Your task to perform on an android device: uninstall "Duolingo: language lessons" Image 0: 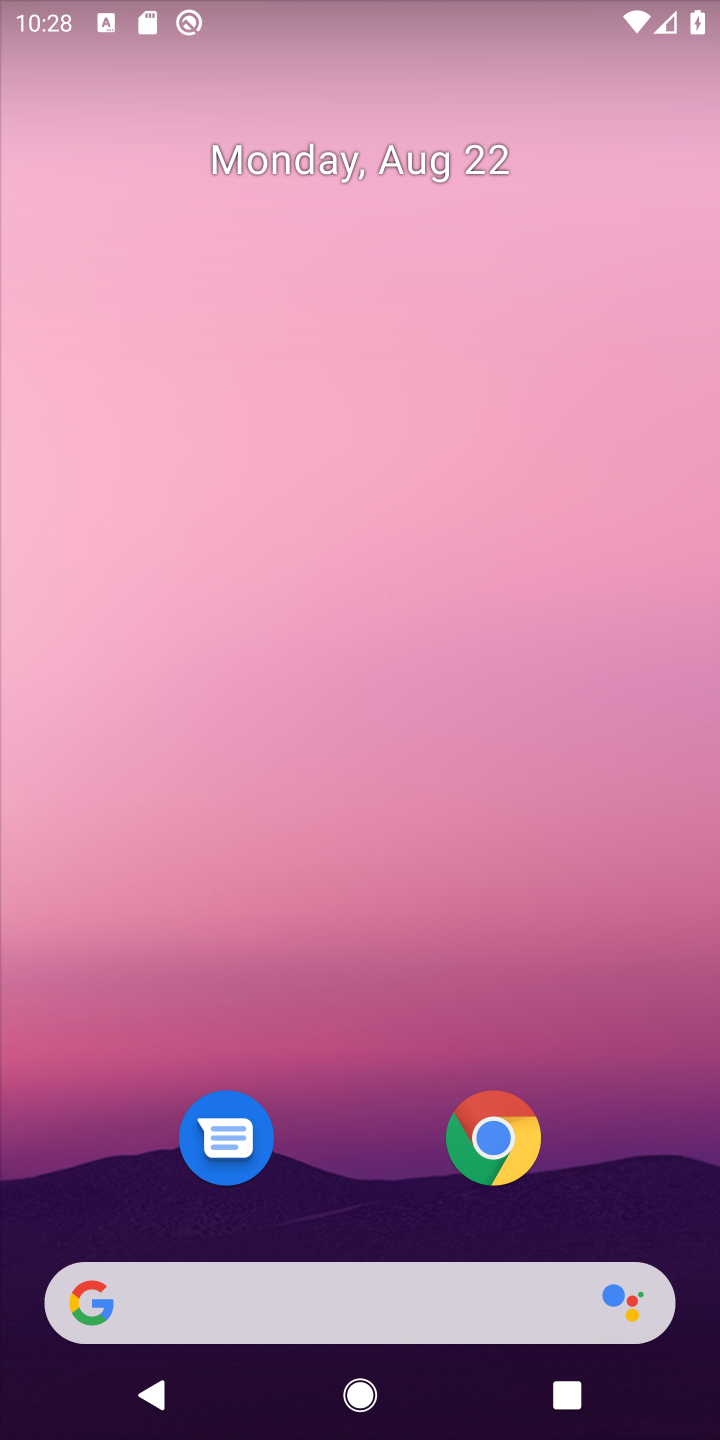
Step 0: press home button
Your task to perform on an android device: uninstall "Duolingo: language lessons" Image 1: 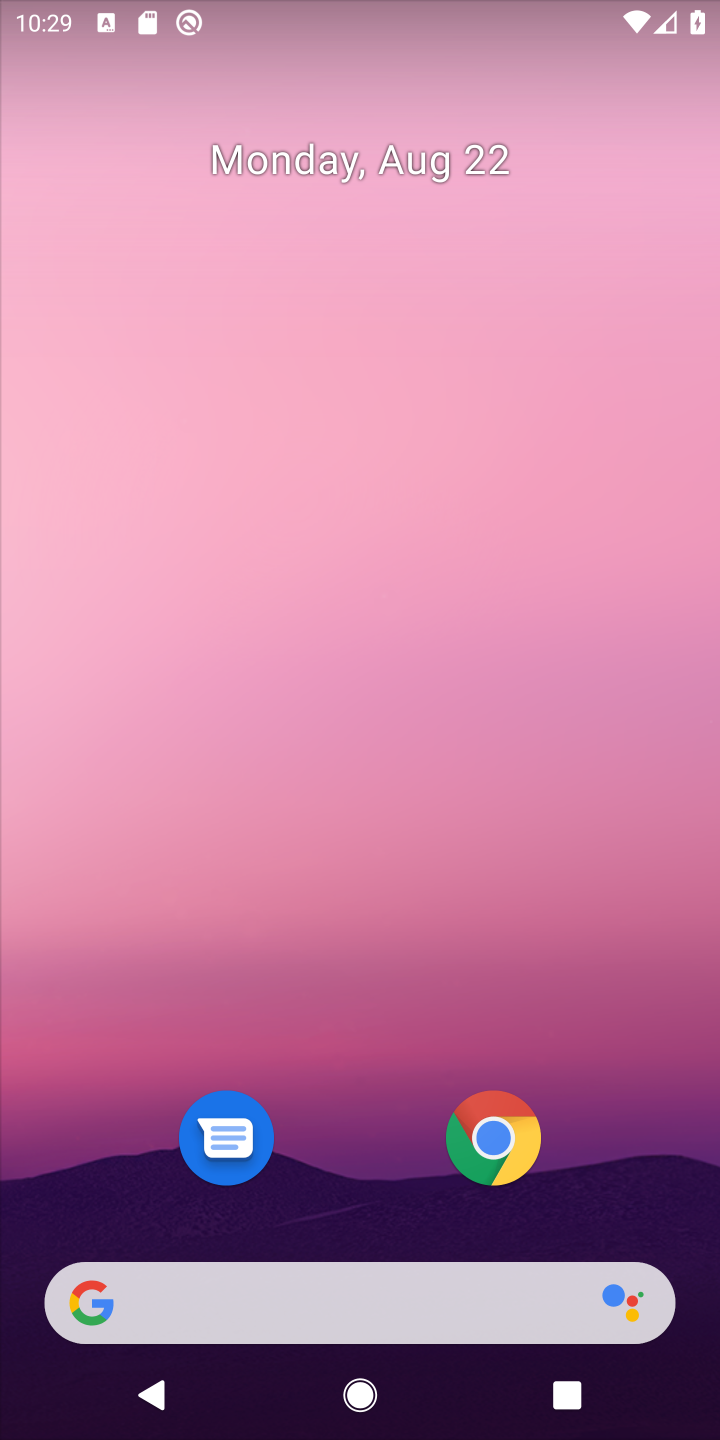
Step 1: drag from (364, 1206) to (418, 297)
Your task to perform on an android device: uninstall "Duolingo: language lessons" Image 2: 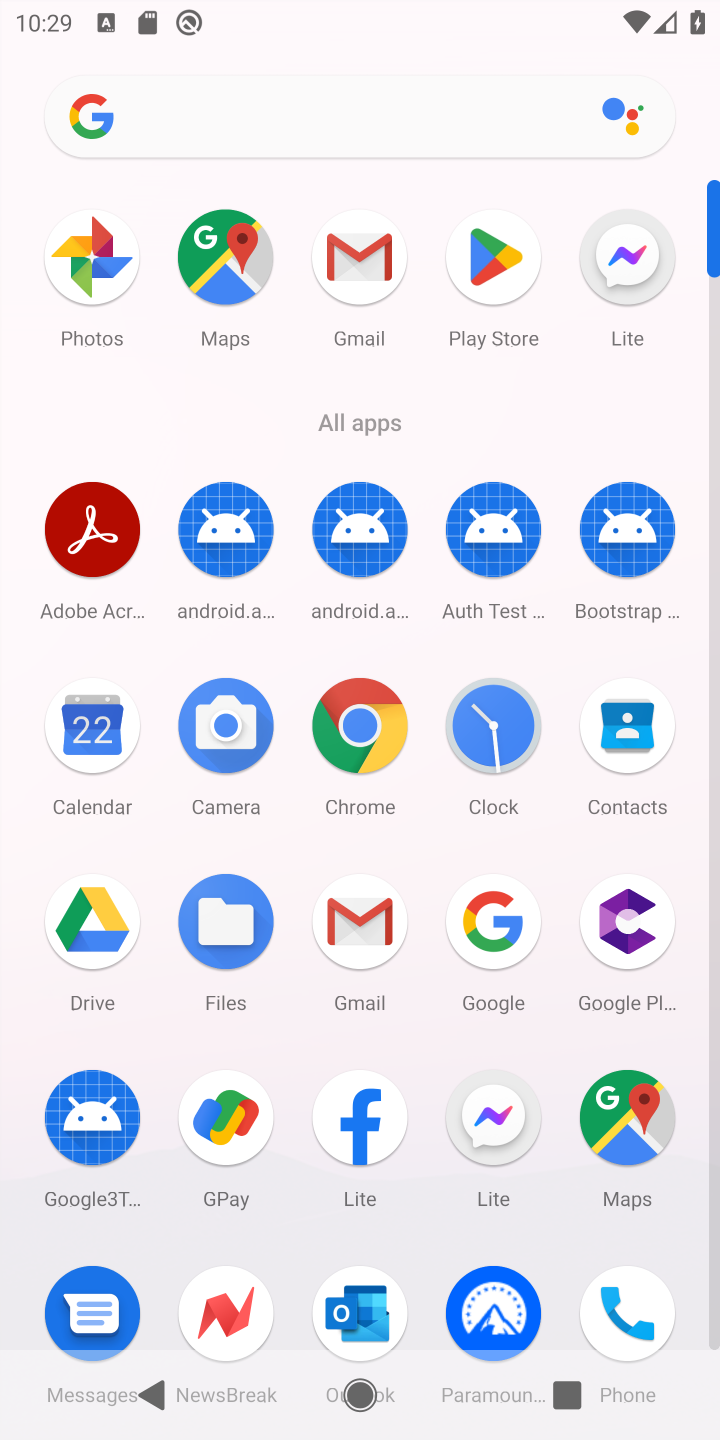
Step 2: click (489, 244)
Your task to perform on an android device: uninstall "Duolingo: language lessons" Image 3: 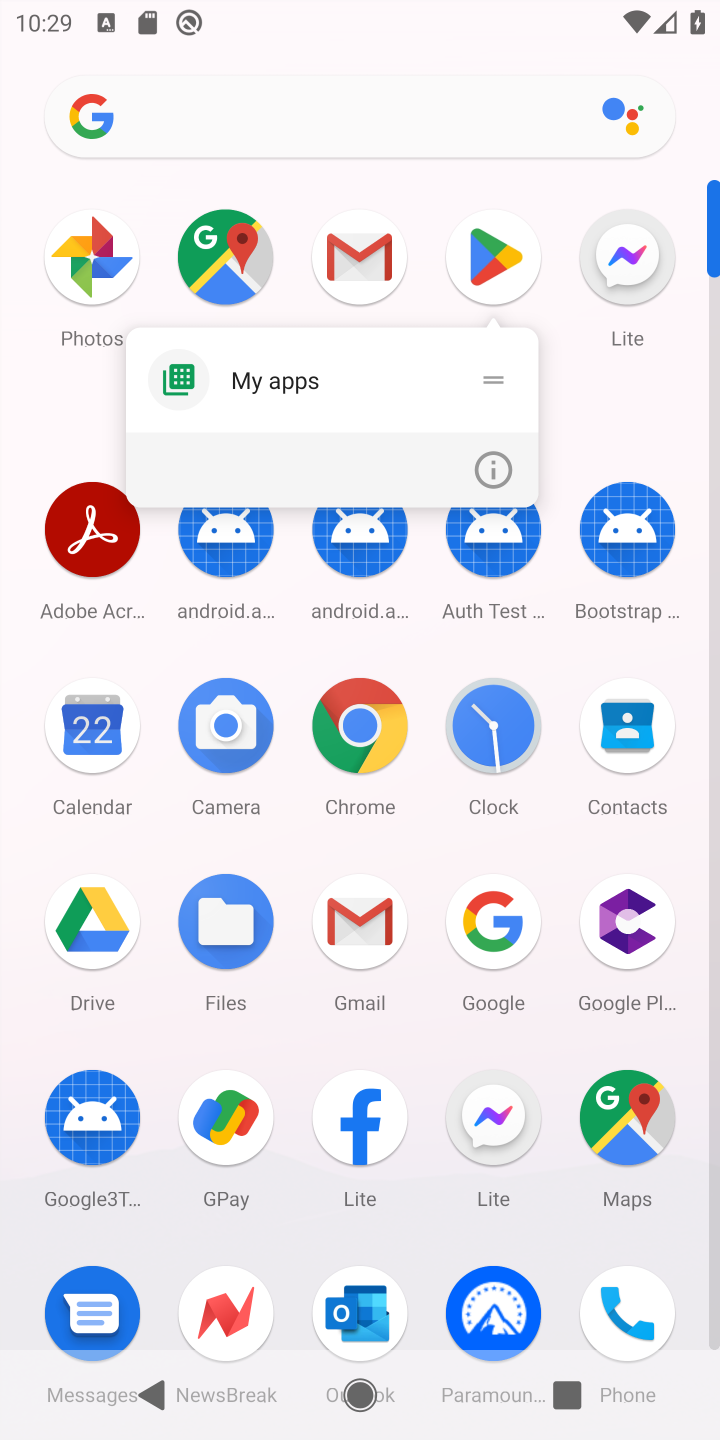
Step 3: click (487, 248)
Your task to perform on an android device: uninstall "Duolingo: language lessons" Image 4: 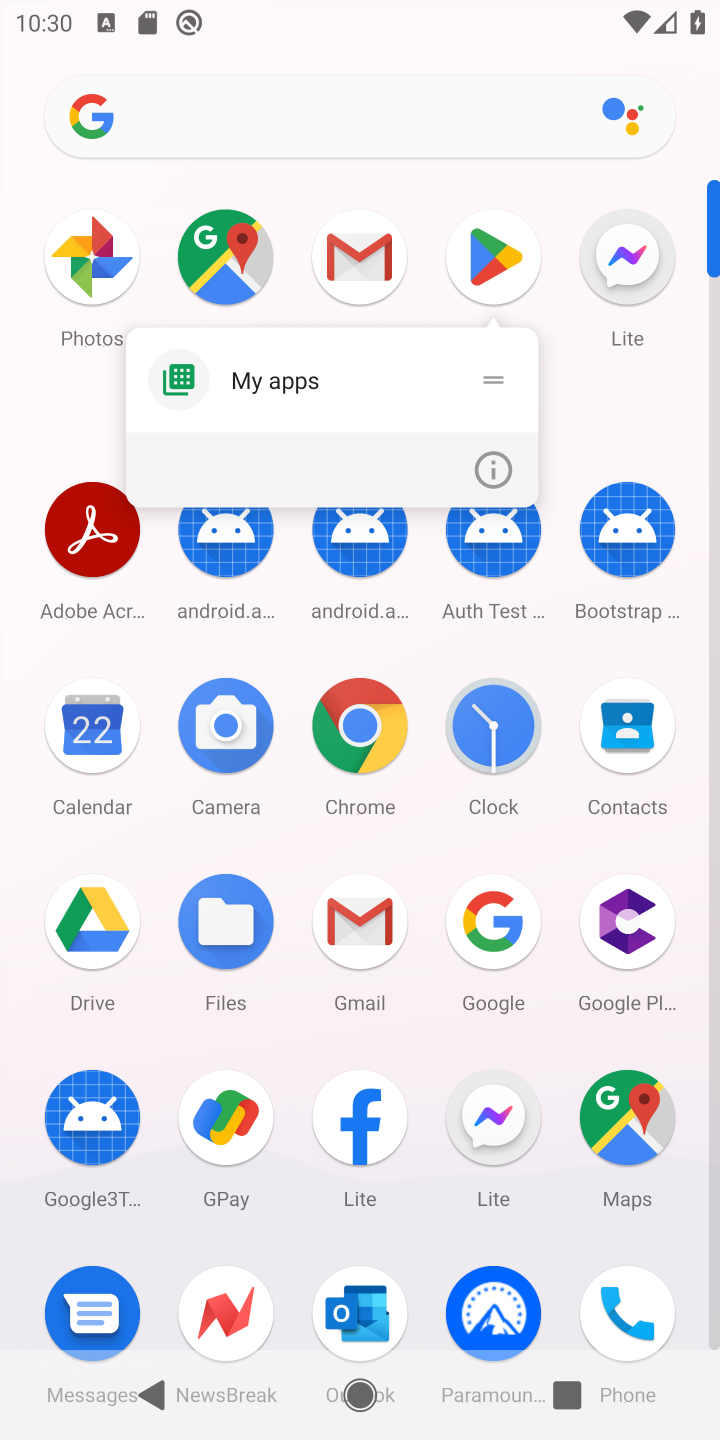
Step 4: click (489, 250)
Your task to perform on an android device: uninstall "Duolingo: language lessons" Image 5: 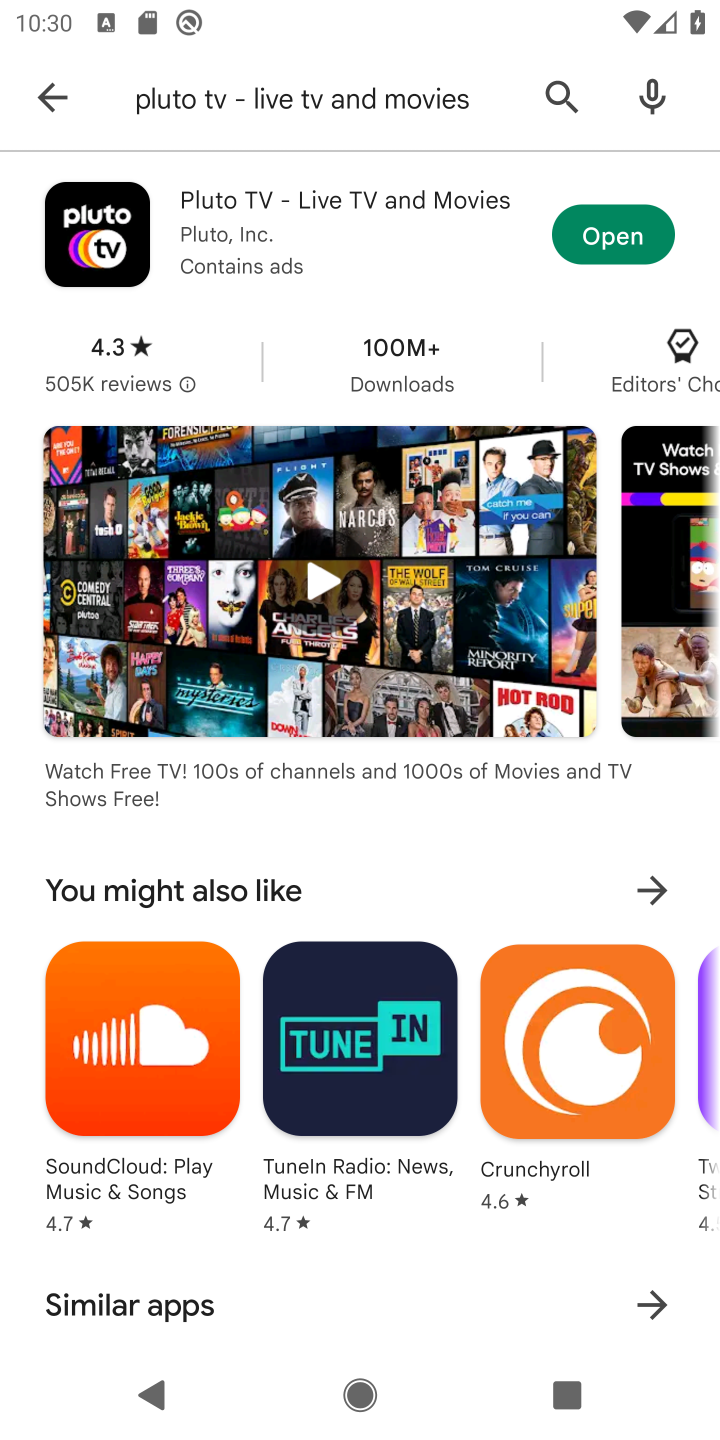
Step 5: click (554, 90)
Your task to perform on an android device: uninstall "Duolingo: language lessons" Image 6: 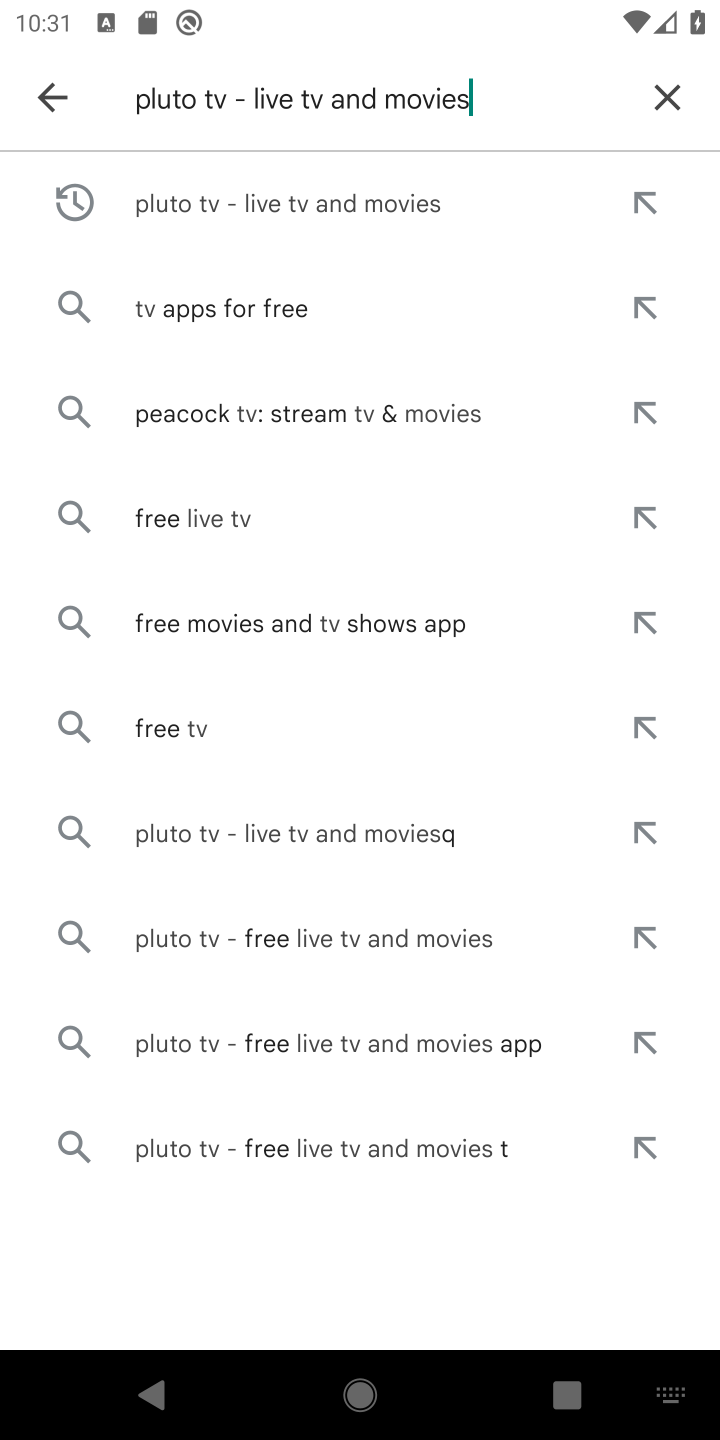
Step 6: click (662, 93)
Your task to perform on an android device: uninstall "Duolingo: language lessons" Image 7: 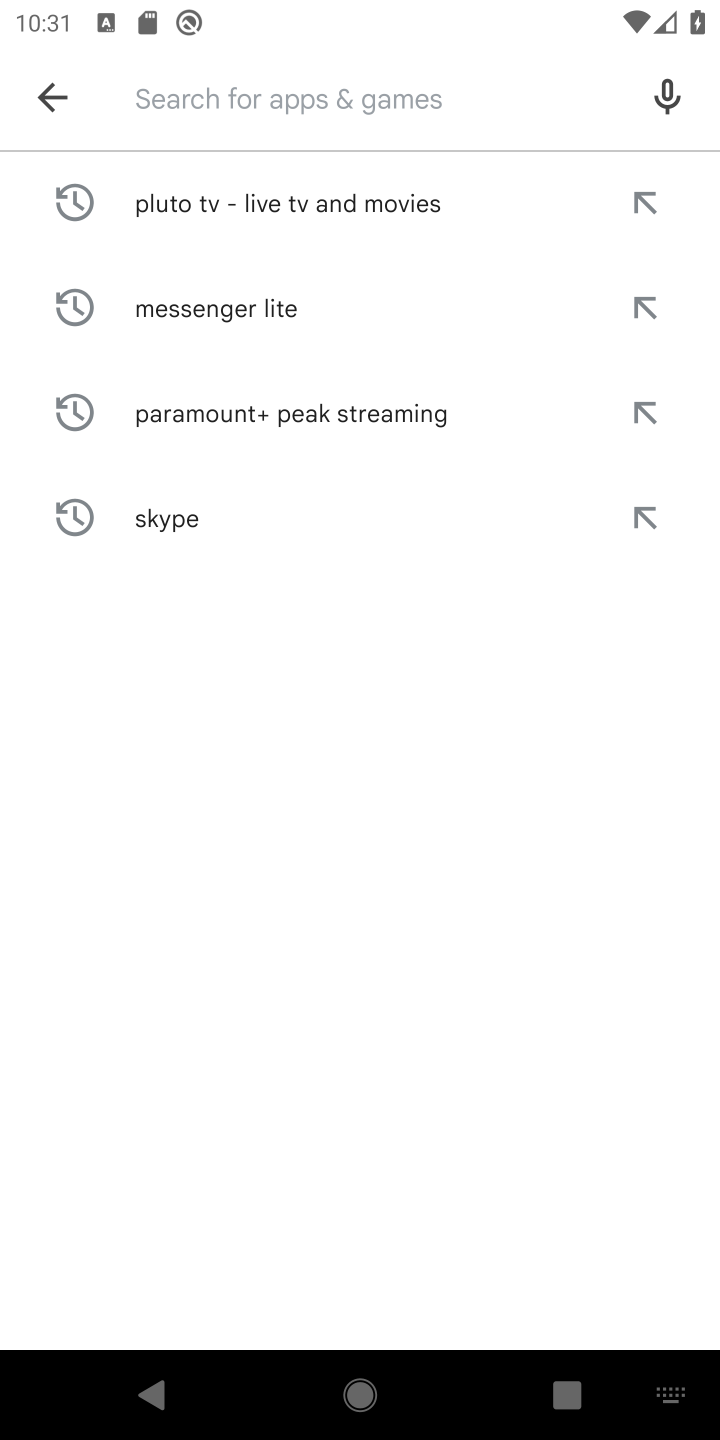
Step 7: type "Duolingo: language lessons"
Your task to perform on an android device: uninstall "Duolingo: language lessons" Image 8: 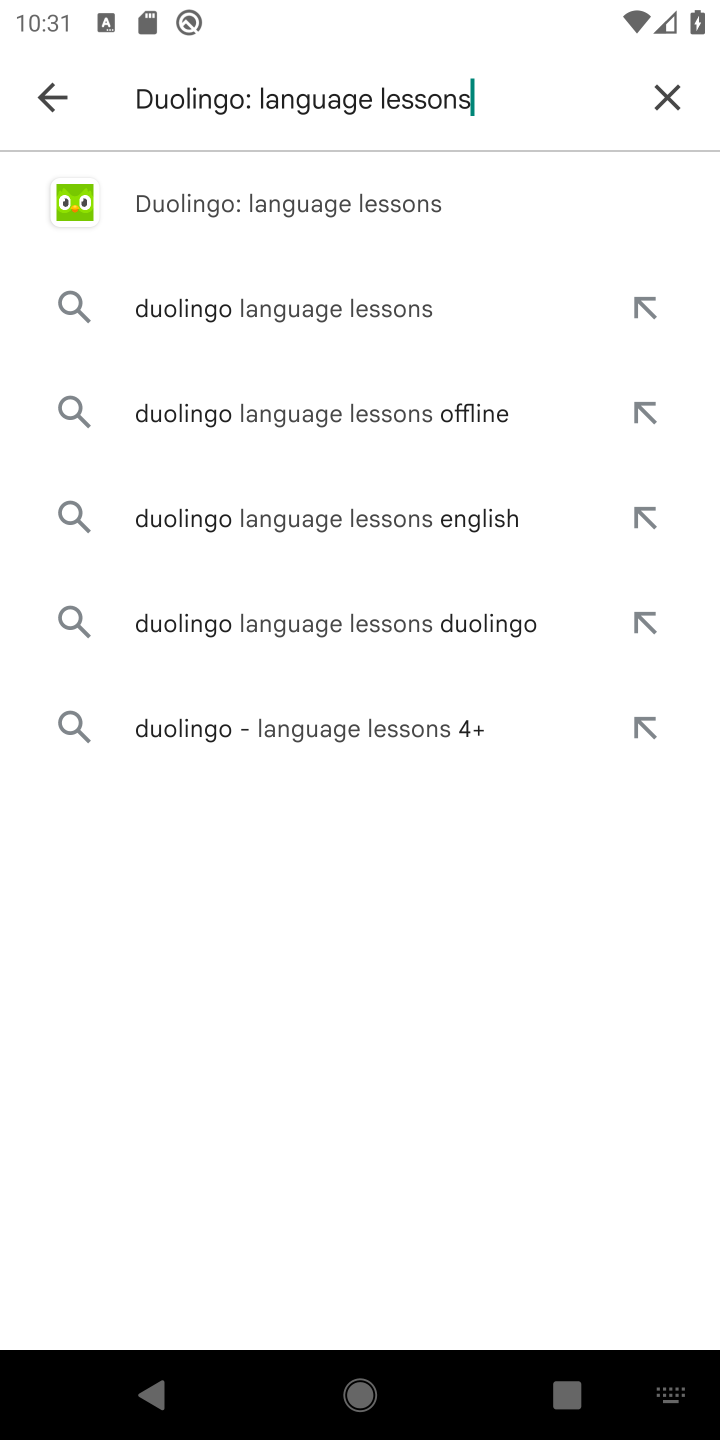
Step 8: click (275, 207)
Your task to perform on an android device: uninstall "Duolingo: language lessons" Image 9: 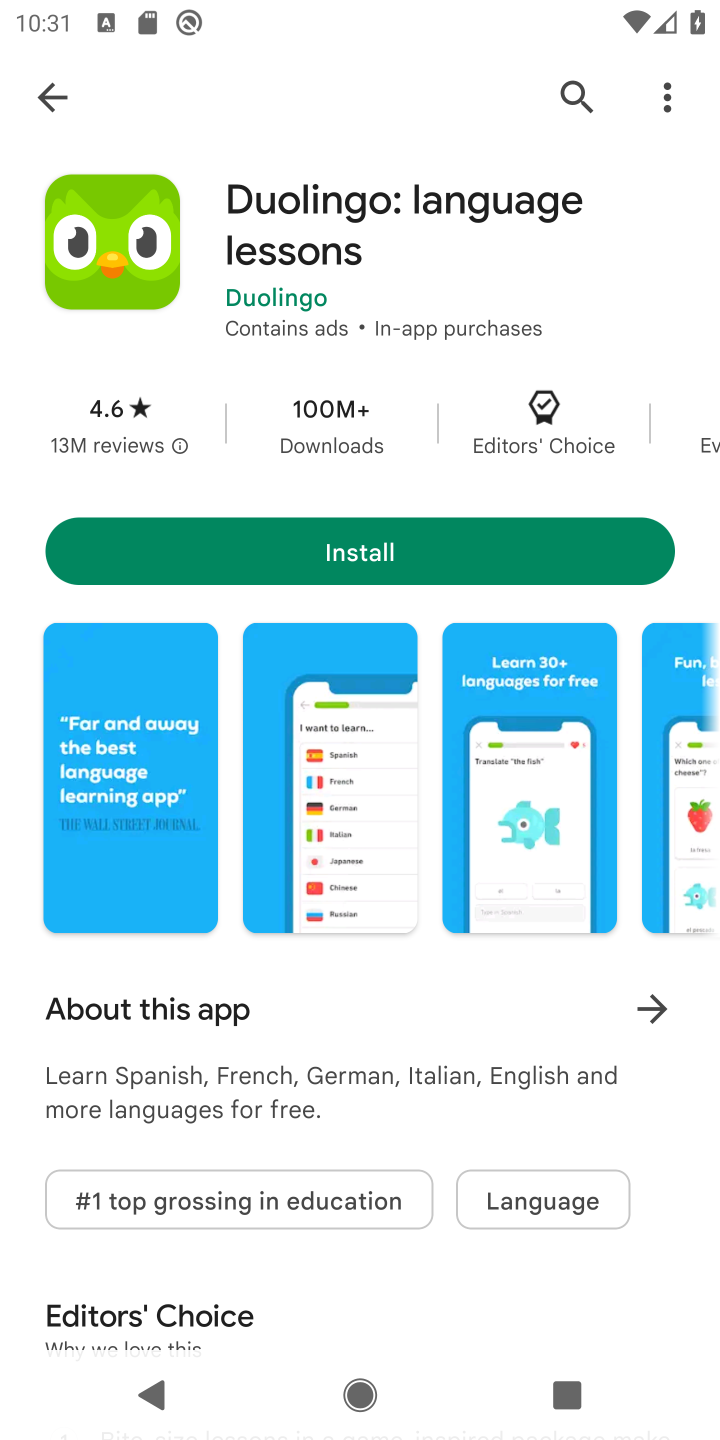
Step 9: task complete